Your task to perform on an android device: Go to Wikipedia Image 0: 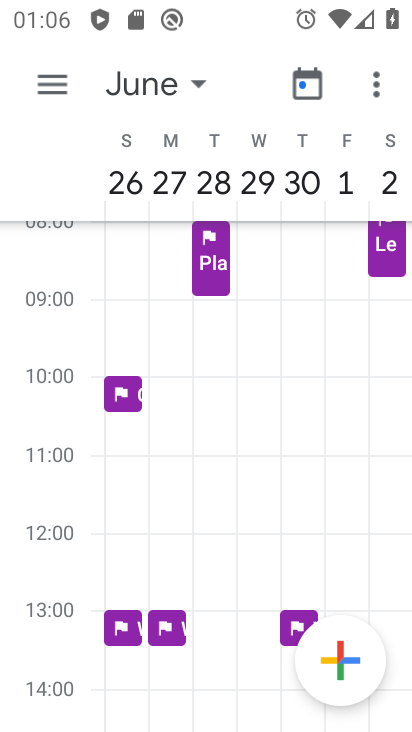
Step 0: press home button
Your task to perform on an android device: Go to Wikipedia Image 1: 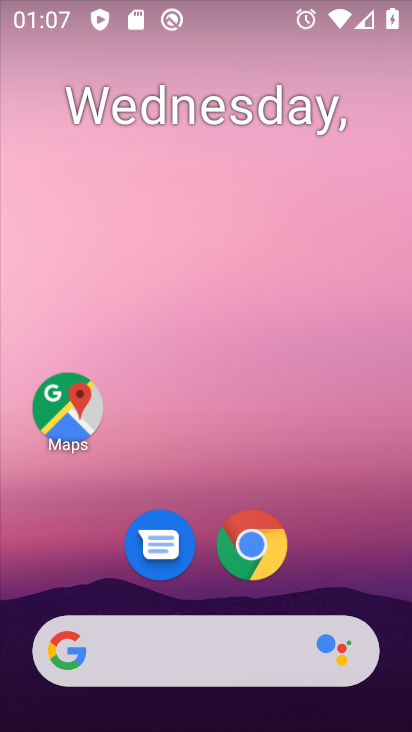
Step 1: click (247, 552)
Your task to perform on an android device: Go to Wikipedia Image 2: 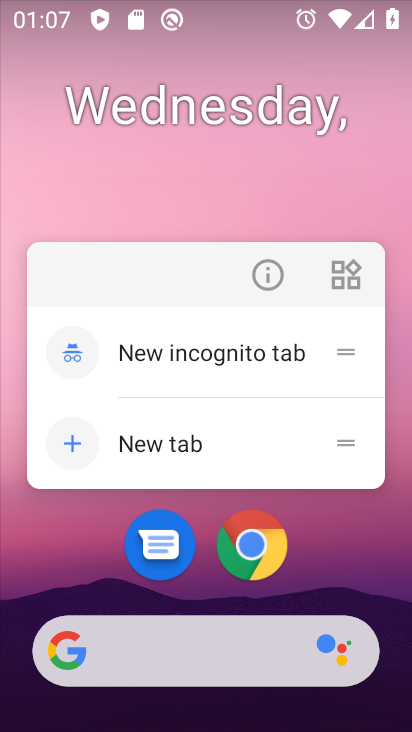
Step 2: click (250, 540)
Your task to perform on an android device: Go to Wikipedia Image 3: 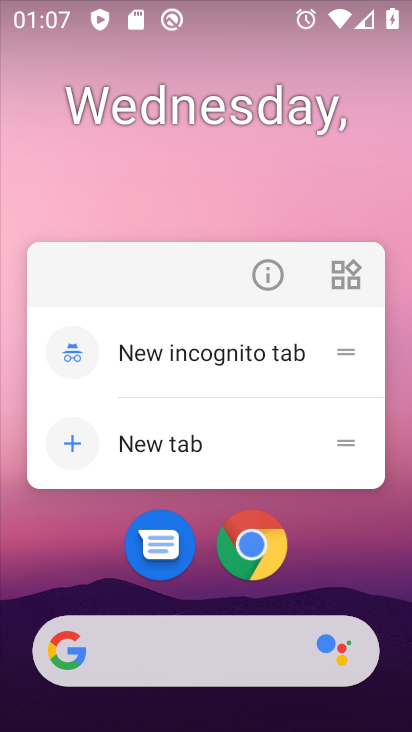
Step 3: click (250, 540)
Your task to perform on an android device: Go to Wikipedia Image 4: 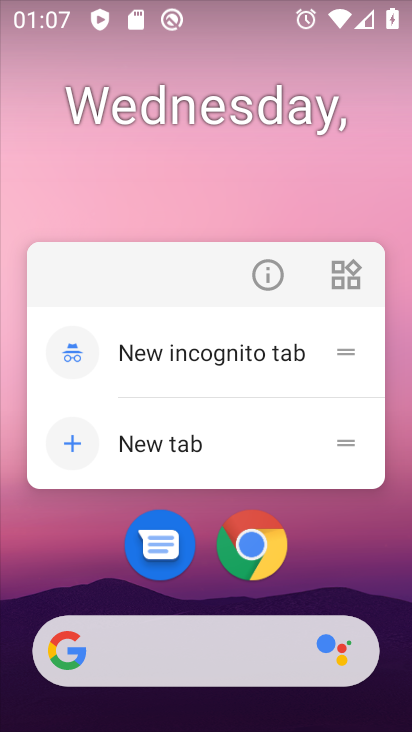
Step 4: click (338, 543)
Your task to perform on an android device: Go to Wikipedia Image 5: 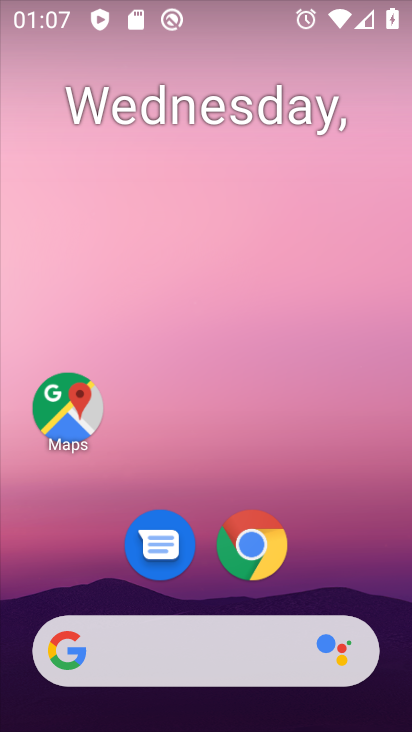
Step 5: drag from (338, 543) to (356, 68)
Your task to perform on an android device: Go to Wikipedia Image 6: 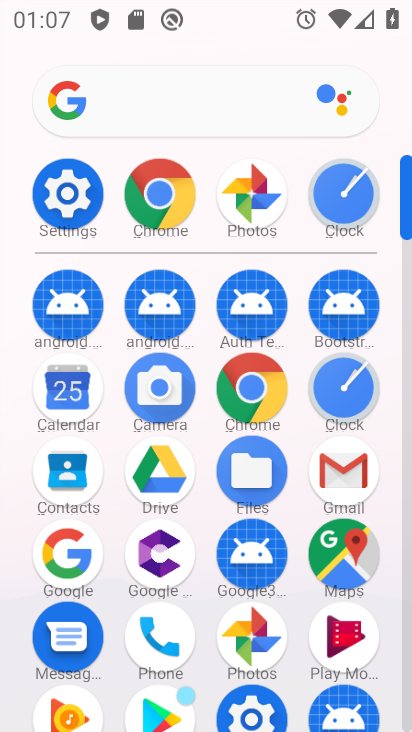
Step 6: click (248, 388)
Your task to perform on an android device: Go to Wikipedia Image 7: 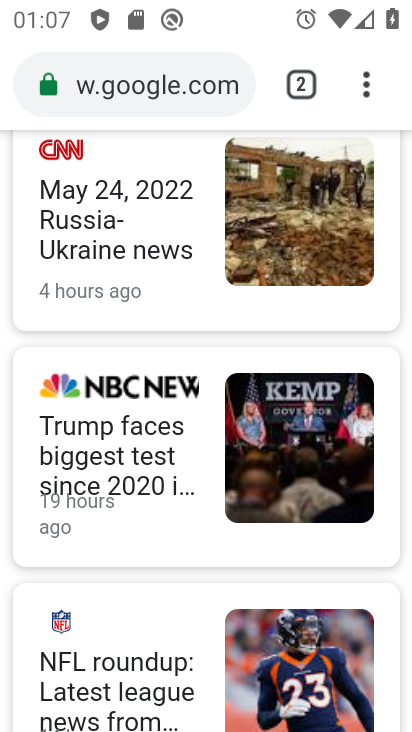
Step 7: click (187, 77)
Your task to perform on an android device: Go to Wikipedia Image 8: 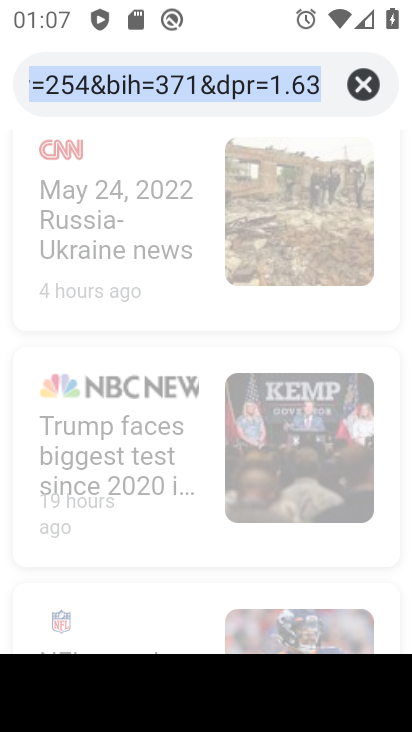
Step 8: type "wikipedia"
Your task to perform on an android device: Go to Wikipedia Image 9: 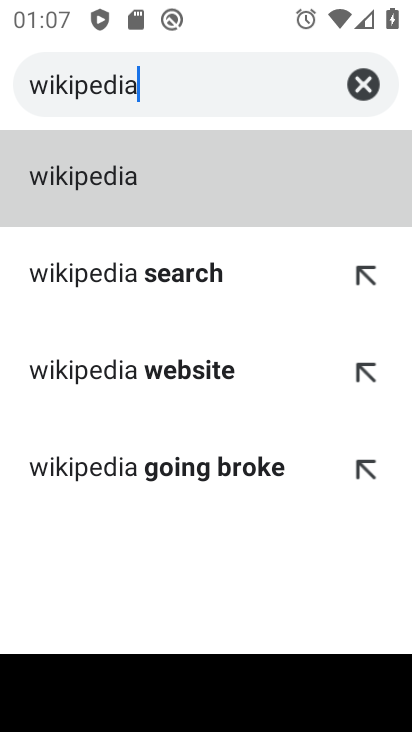
Step 9: click (114, 171)
Your task to perform on an android device: Go to Wikipedia Image 10: 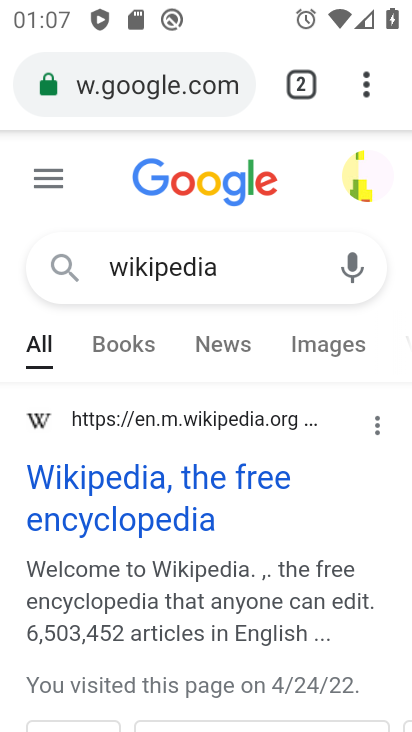
Step 10: click (162, 478)
Your task to perform on an android device: Go to Wikipedia Image 11: 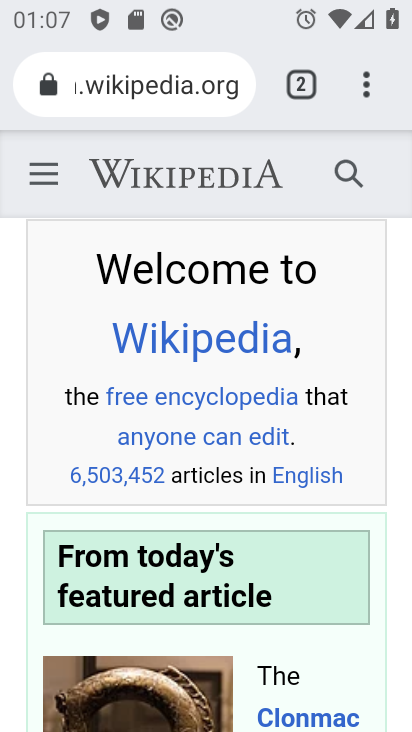
Step 11: task complete